Your task to perform on an android device: What's the weather going to be tomorrow? Image 0: 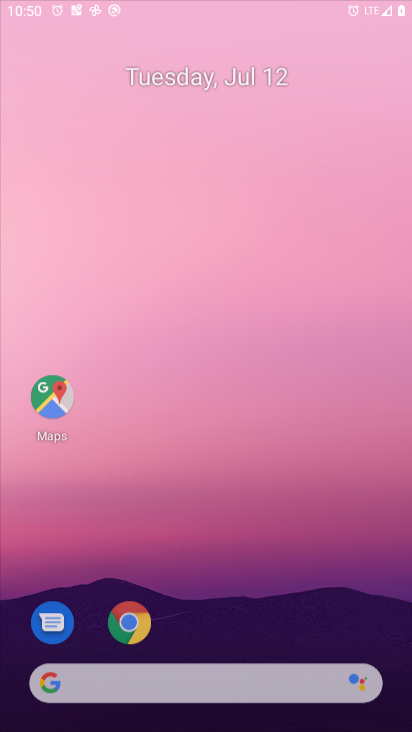
Step 0: press home button
Your task to perform on an android device: What's the weather going to be tomorrow? Image 1: 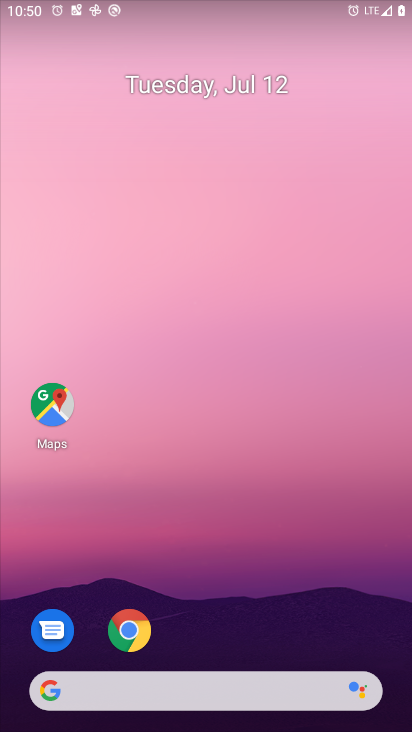
Step 1: click (162, 683)
Your task to perform on an android device: What's the weather going to be tomorrow? Image 2: 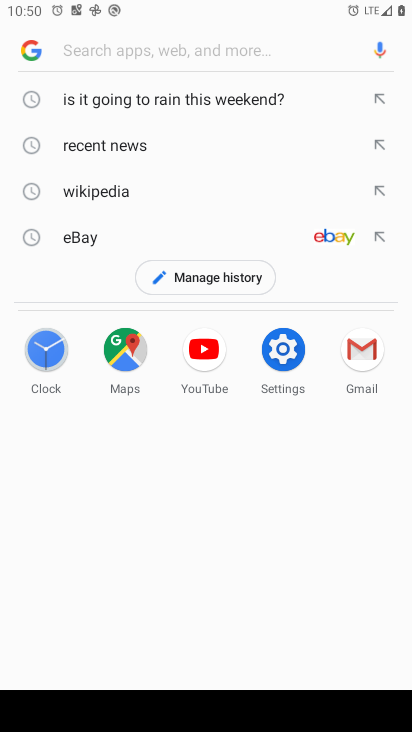
Step 2: click (139, 50)
Your task to perform on an android device: What's the weather going to be tomorrow? Image 3: 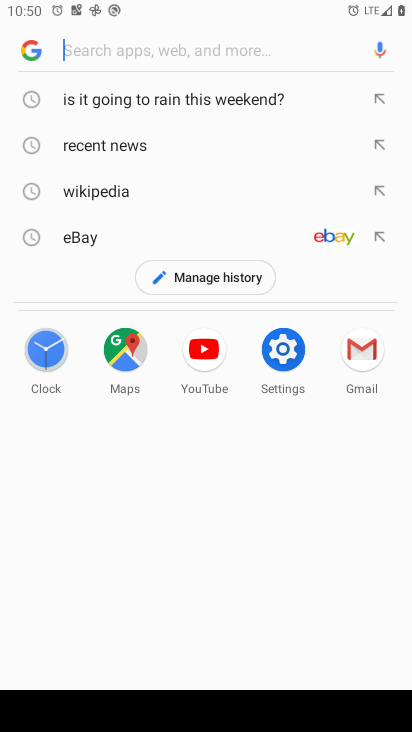
Step 3: type "What's the weather going to be tomorrow?"
Your task to perform on an android device: What's the weather going to be tomorrow? Image 4: 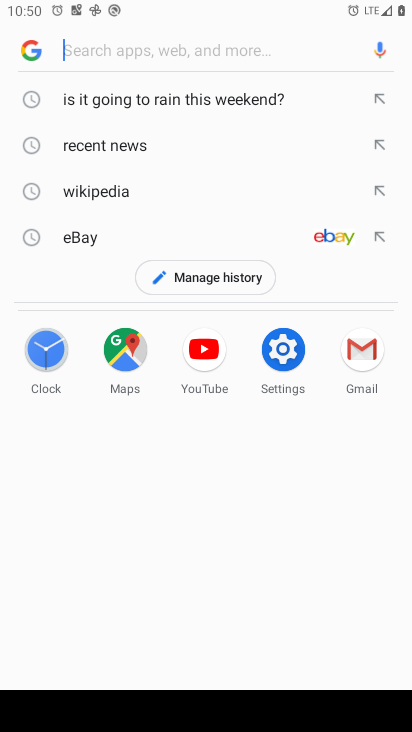
Step 4: click (139, 50)
Your task to perform on an android device: What's the weather going to be tomorrow? Image 5: 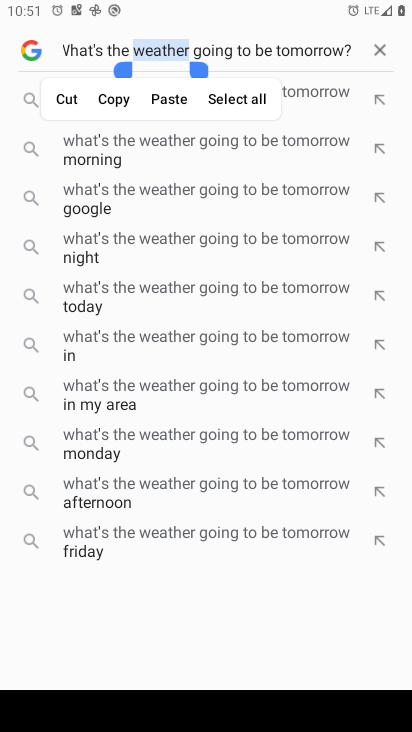
Step 5: press enter
Your task to perform on an android device: What's the weather going to be tomorrow? Image 6: 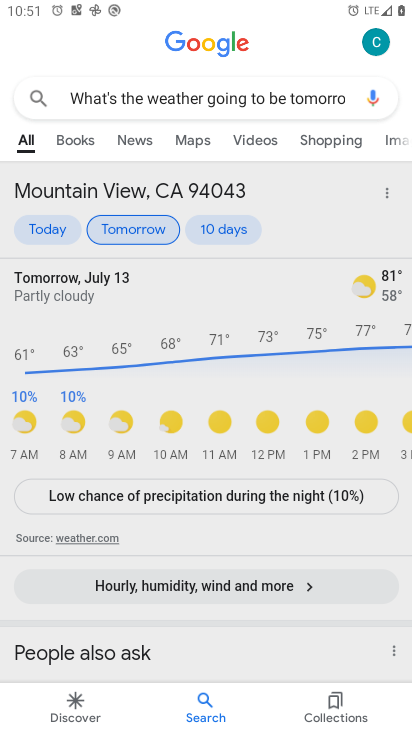
Step 6: task complete